Your task to perform on an android device: Search for a custom made wallet on Etsy Image 0: 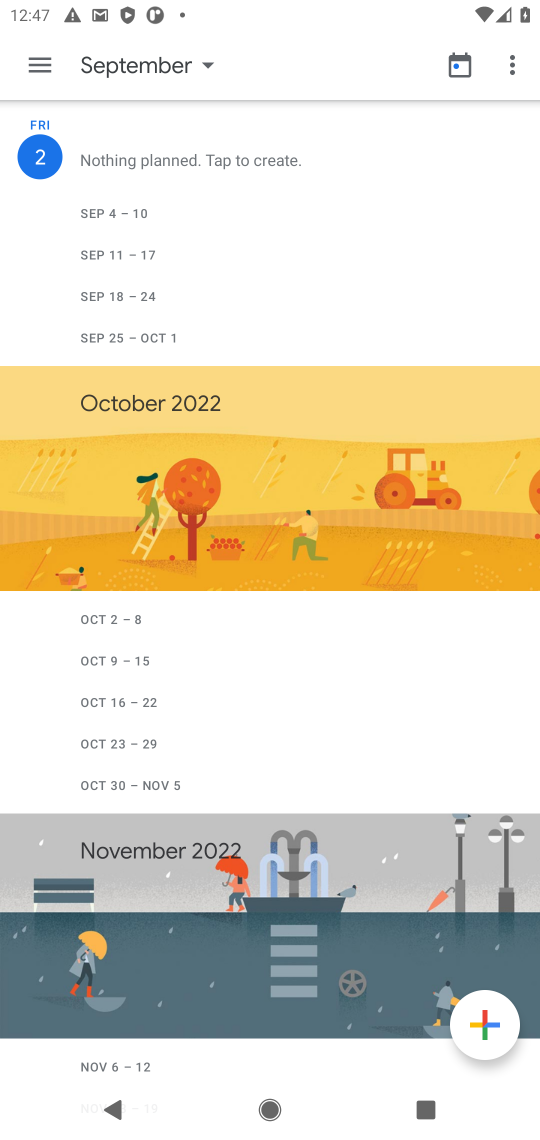
Step 0: press home button
Your task to perform on an android device: Search for a custom made wallet on Etsy Image 1: 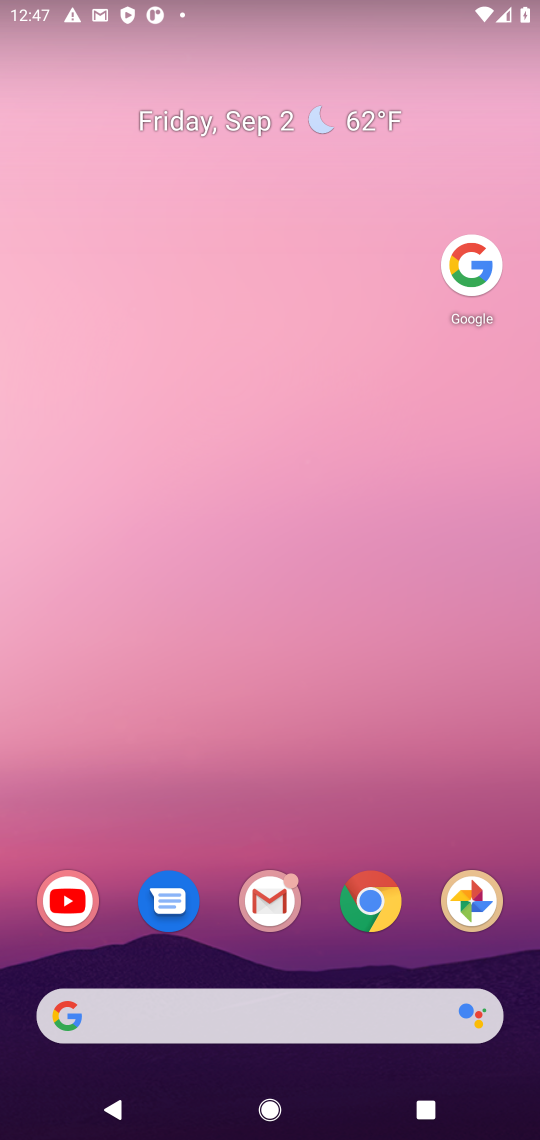
Step 1: drag from (226, 327) to (226, 235)
Your task to perform on an android device: Search for a custom made wallet on Etsy Image 2: 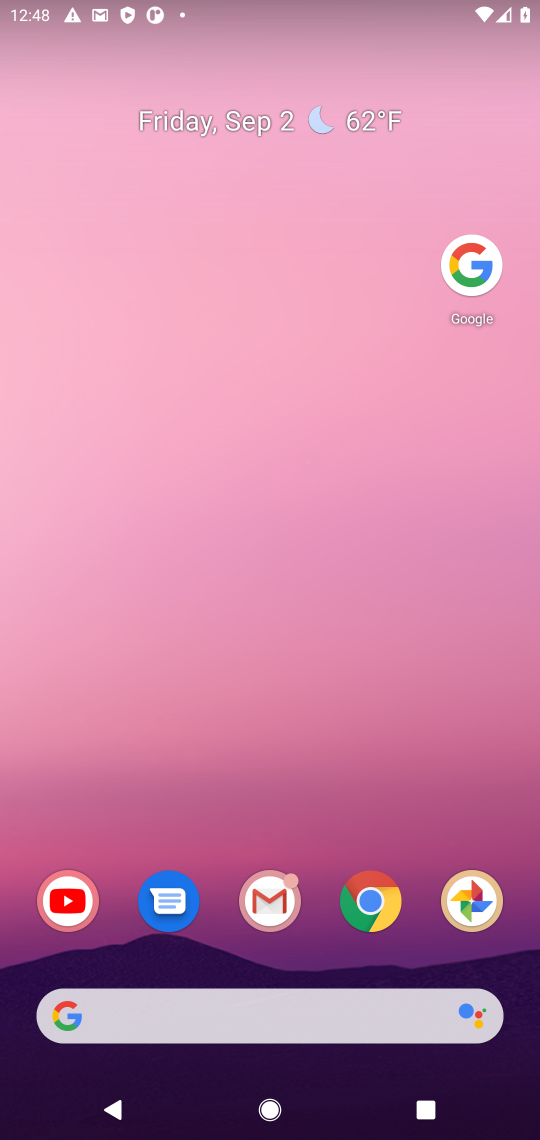
Step 2: drag from (313, 925) to (309, 864)
Your task to perform on an android device: Search for a custom made wallet on Etsy Image 3: 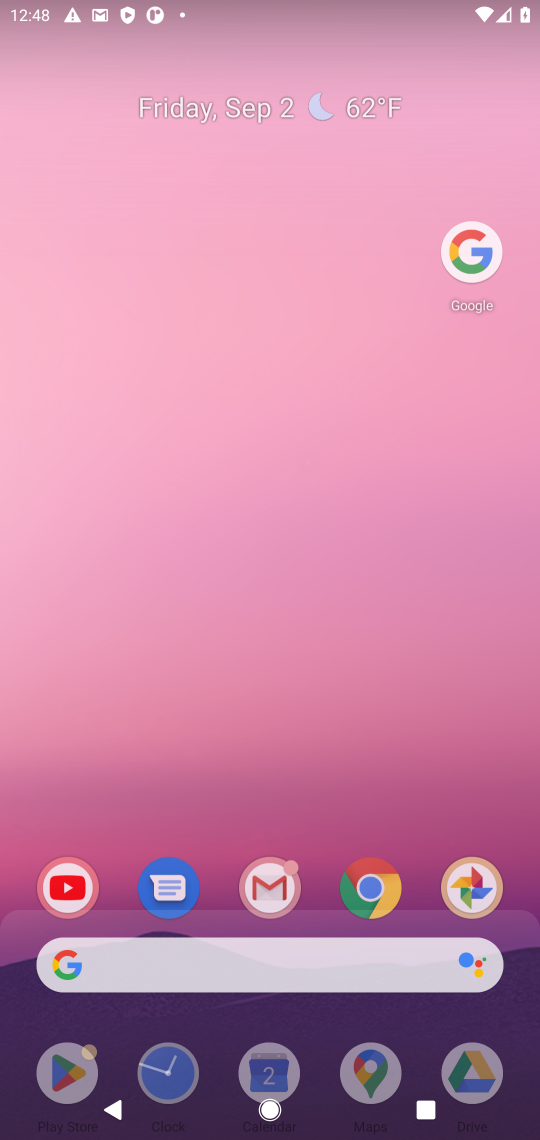
Step 3: click (453, 232)
Your task to perform on an android device: Search for a custom made wallet on Etsy Image 4: 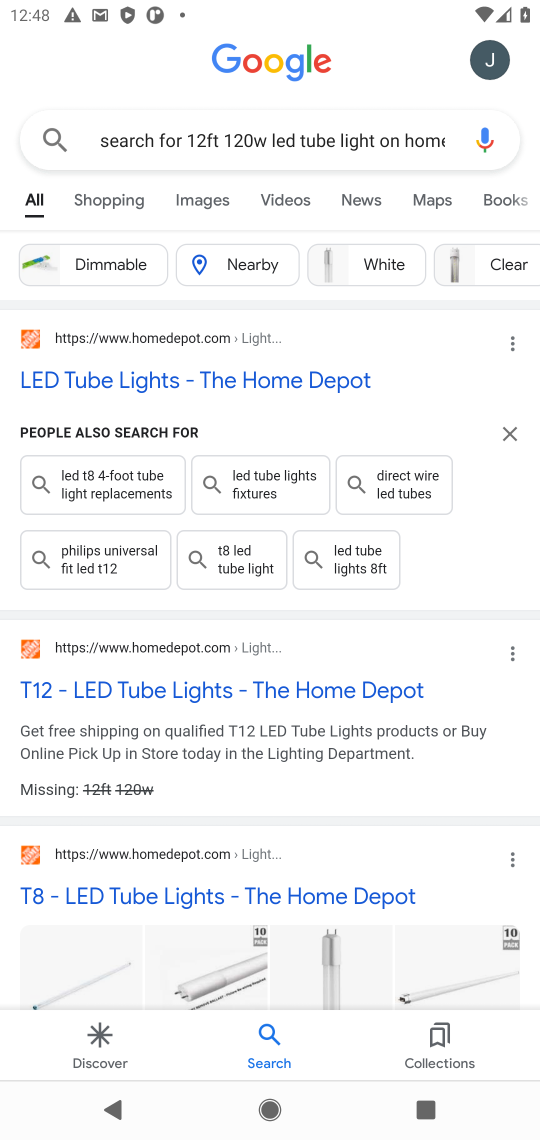
Step 4: click (357, 127)
Your task to perform on an android device: Search for a custom made wallet on Etsy Image 5: 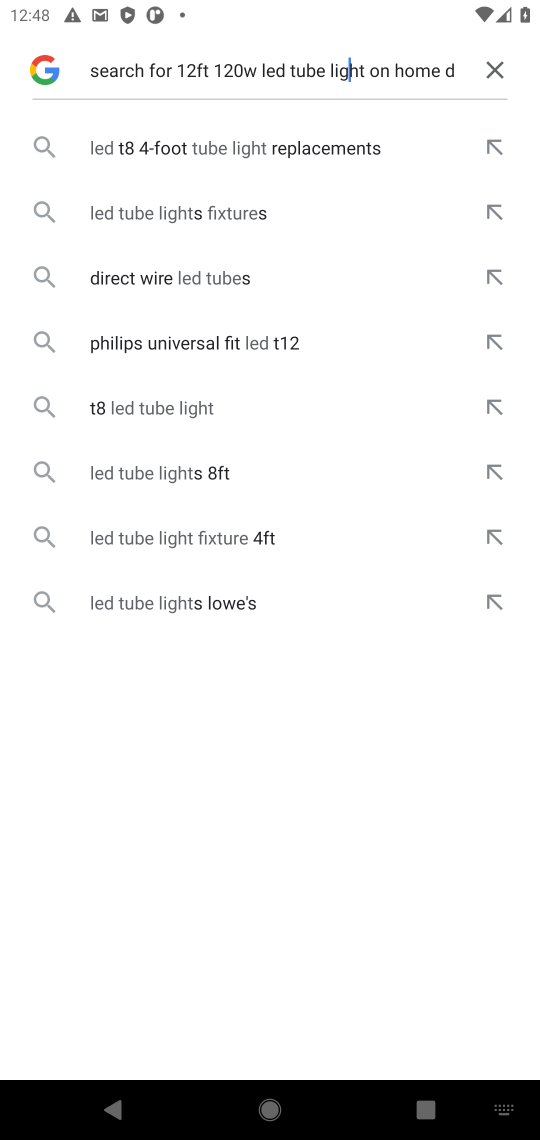
Step 5: click (491, 83)
Your task to perform on an android device: Search for a custom made wallet on Etsy Image 6: 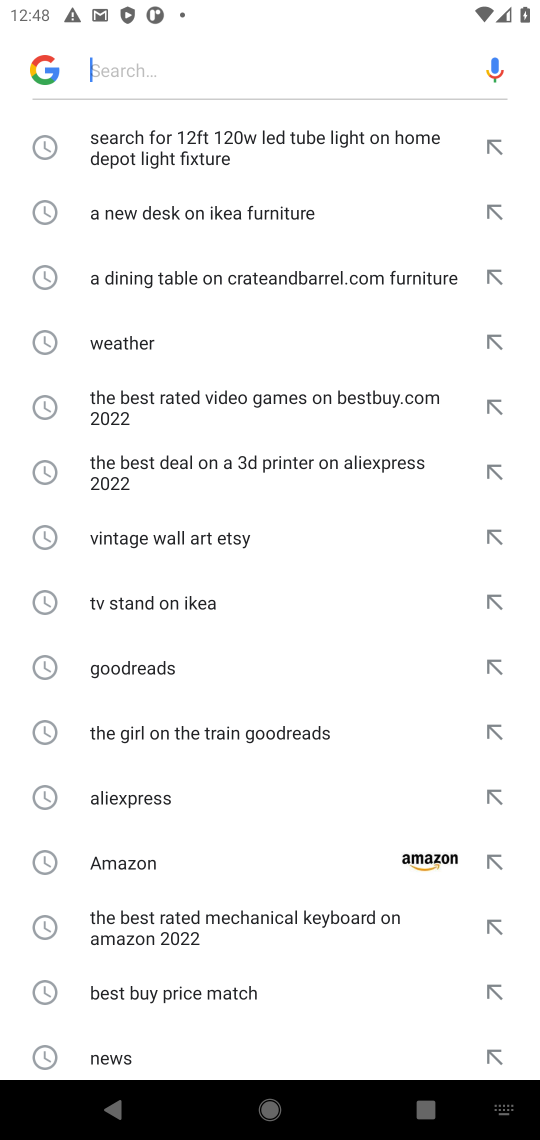
Step 6: type "a custom made wallet on Etsy "
Your task to perform on an android device: Search for a custom made wallet on Etsy Image 7: 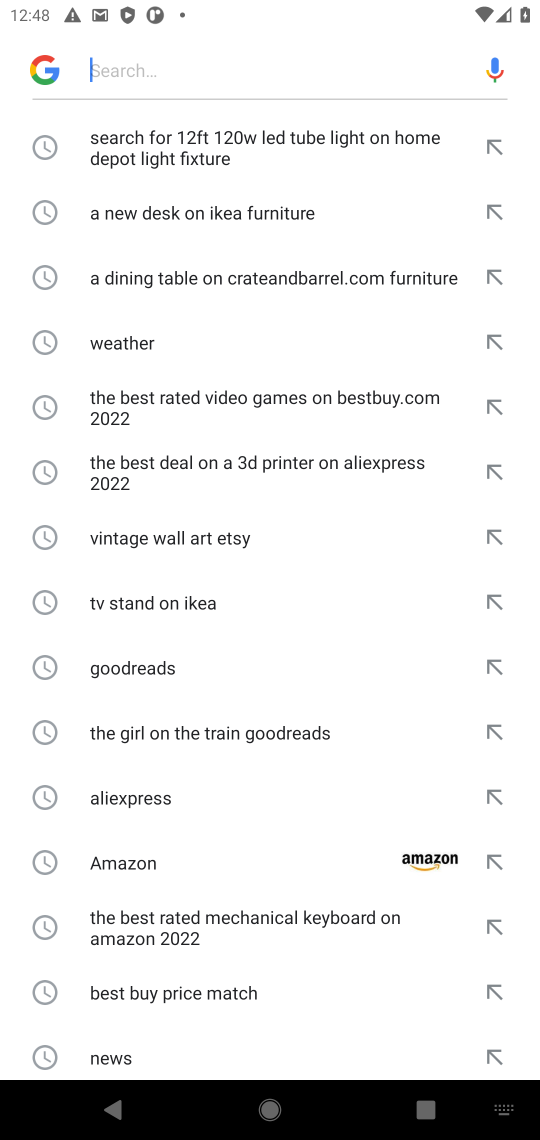
Step 7: click (208, 73)
Your task to perform on an android device: Search for a custom made wallet on Etsy Image 8: 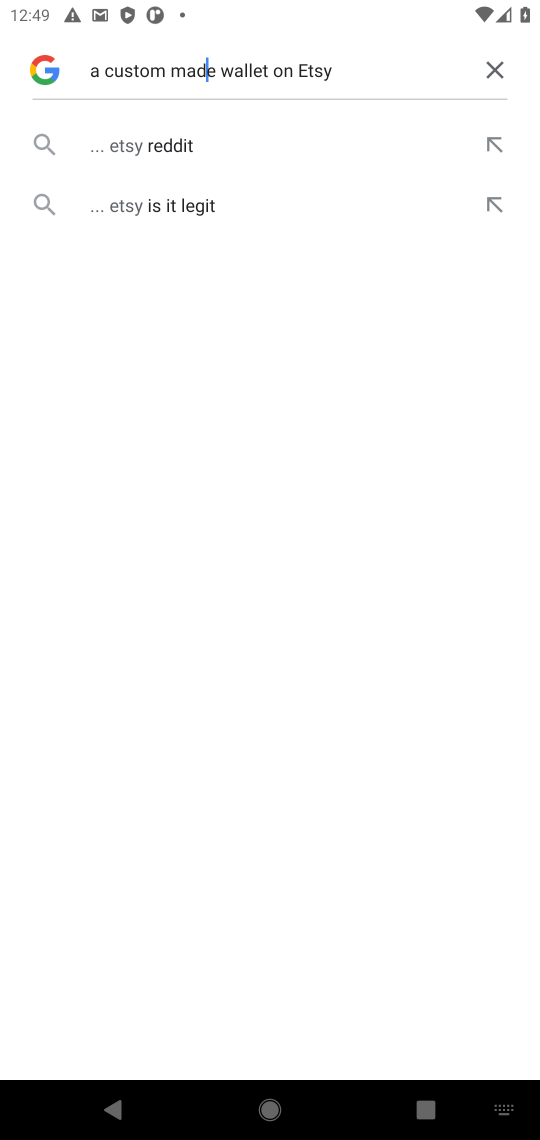
Step 8: click (376, 63)
Your task to perform on an android device: Search for a custom made wallet on Etsy Image 9: 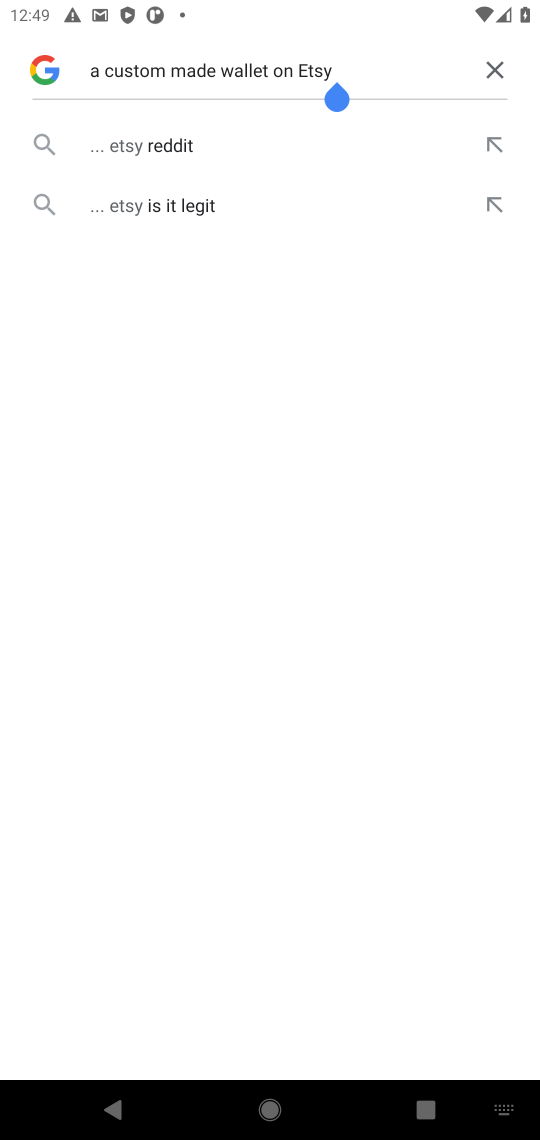
Step 9: click (142, 138)
Your task to perform on an android device: Search for a custom made wallet on Etsy Image 10: 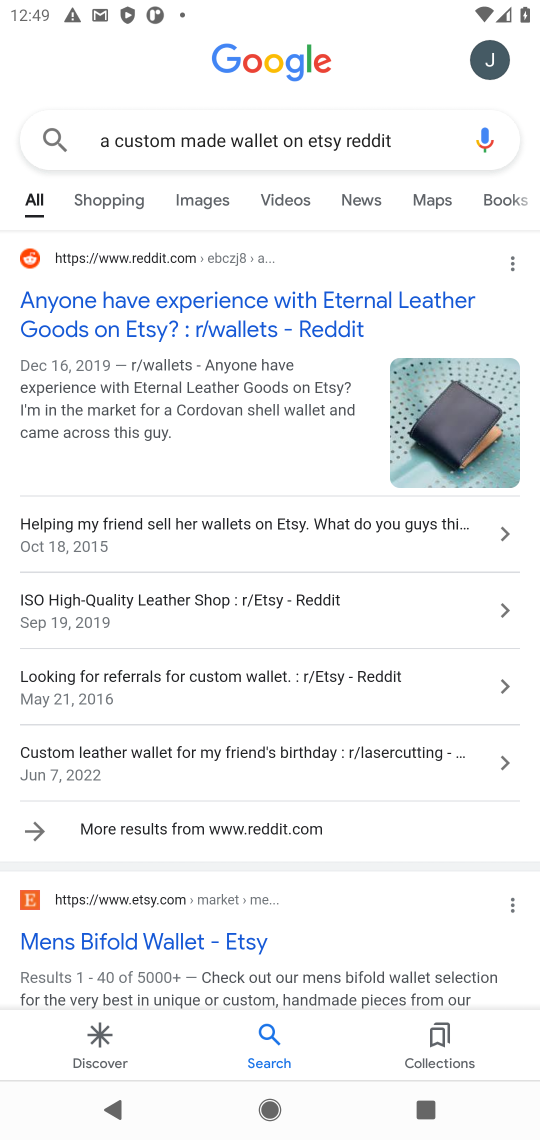
Step 10: click (214, 936)
Your task to perform on an android device: Search for a custom made wallet on Etsy Image 11: 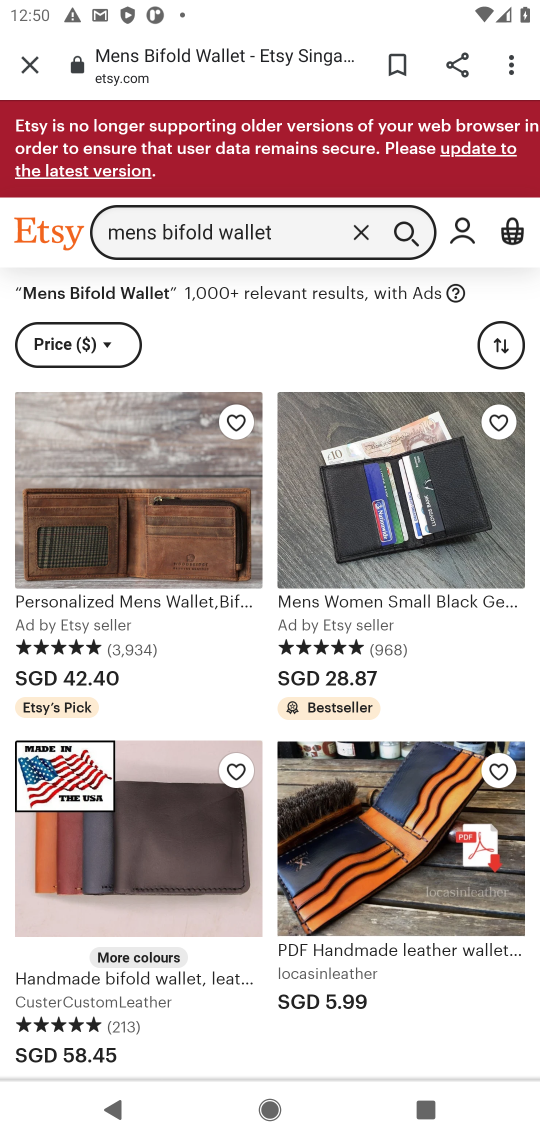
Step 11: drag from (208, 934) to (247, 337)
Your task to perform on an android device: Search for a custom made wallet on Etsy Image 12: 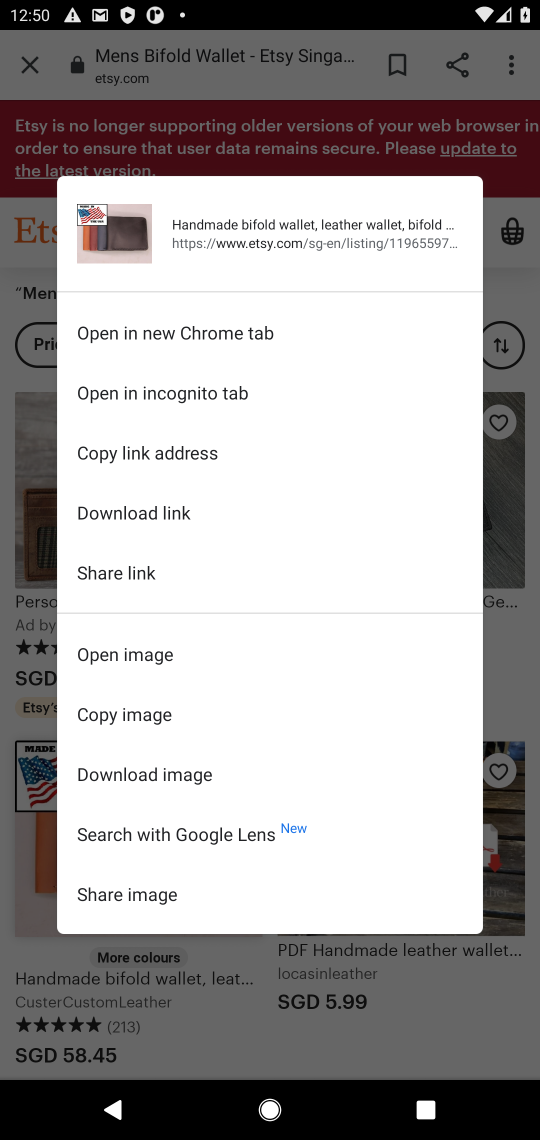
Step 12: click (516, 269)
Your task to perform on an android device: Search for a custom made wallet on Etsy Image 13: 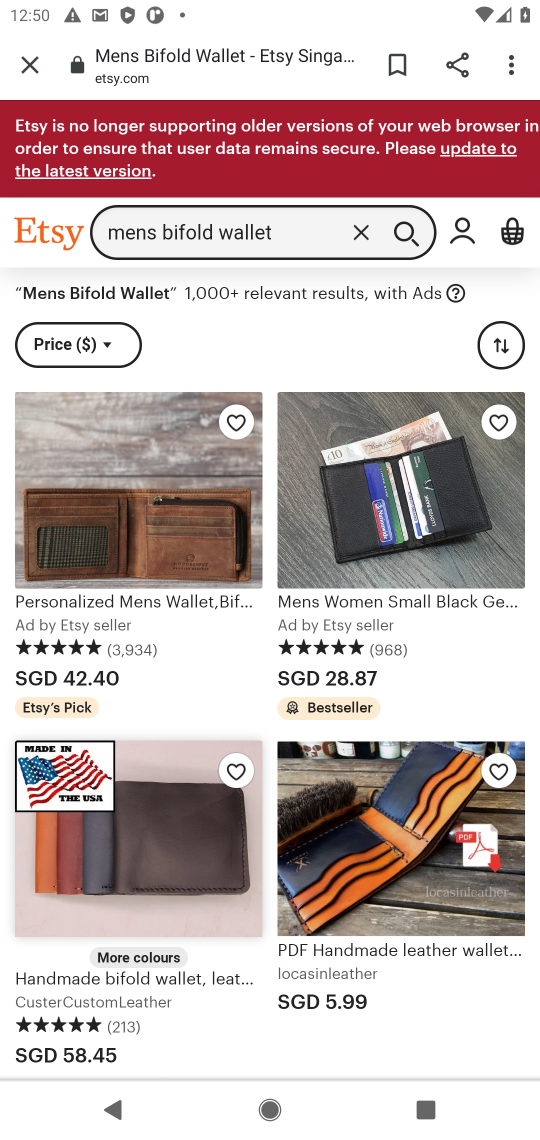
Step 13: task complete